Your task to perform on an android device: star an email in the gmail app Image 0: 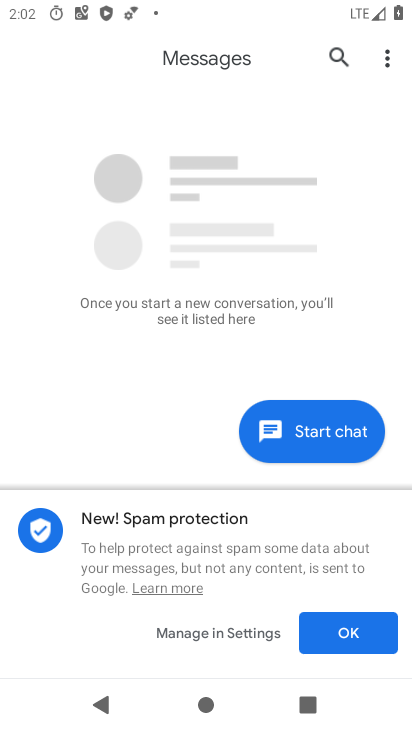
Step 0: press home button
Your task to perform on an android device: star an email in the gmail app Image 1: 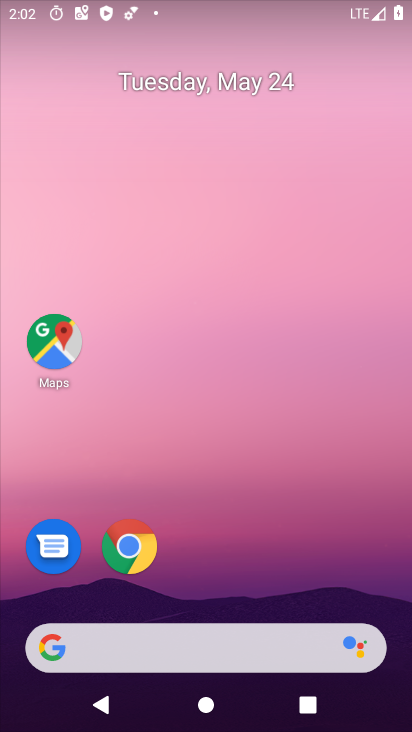
Step 1: drag from (170, 645) to (187, 16)
Your task to perform on an android device: star an email in the gmail app Image 2: 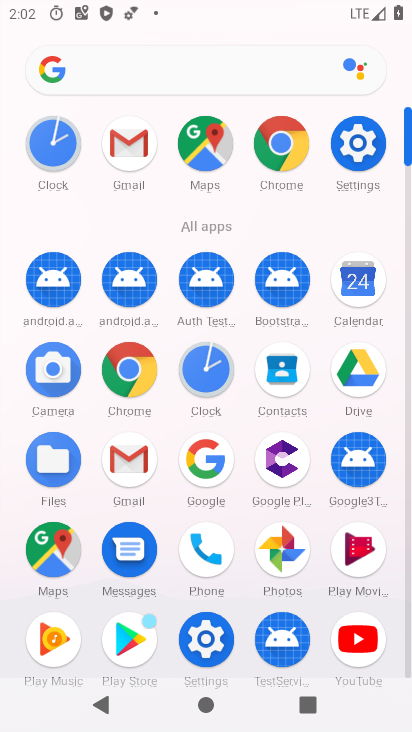
Step 2: click (134, 471)
Your task to perform on an android device: star an email in the gmail app Image 3: 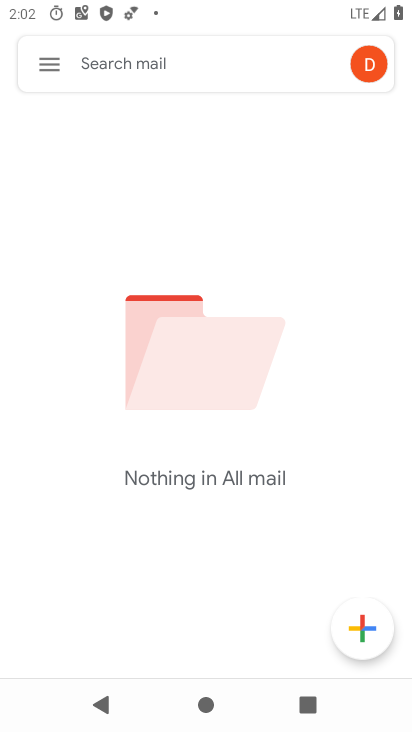
Step 3: click (57, 78)
Your task to perform on an android device: star an email in the gmail app Image 4: 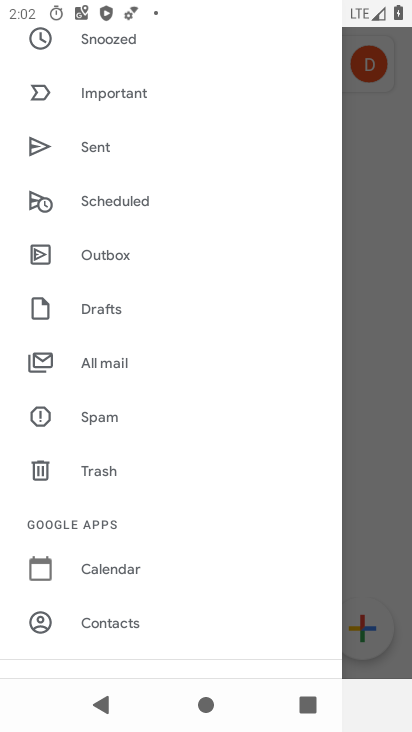
Step 4: click (98, 371)
Your task to perform on an android device: star an email in the gmail app Image 5: 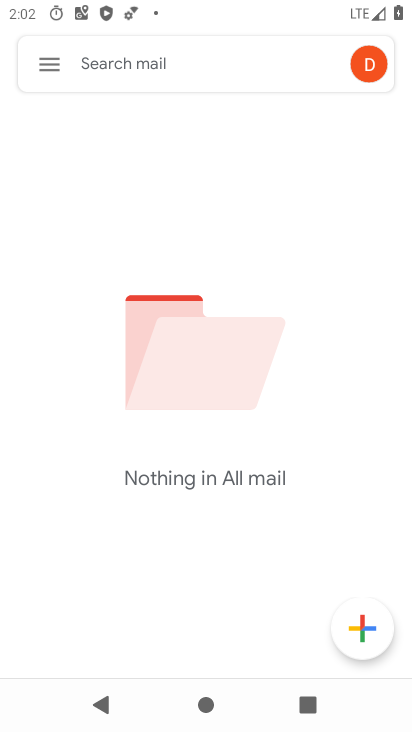
Step 5: task complete